Your task to perform on an android device: Open the web browser Image 0: 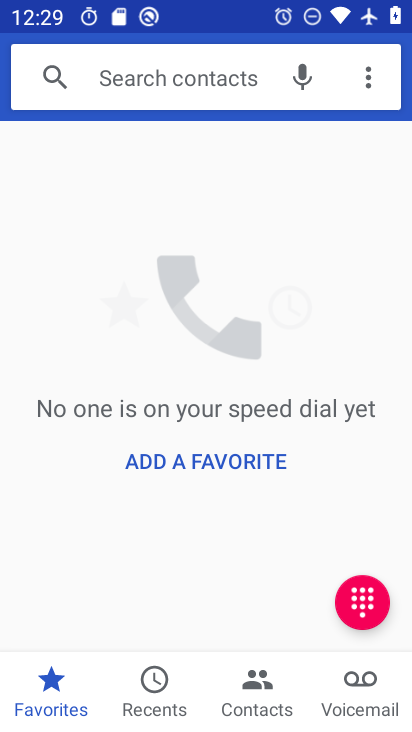
Step 0: press home button
Your task to perform on an android device: Open the web browser Image 1: 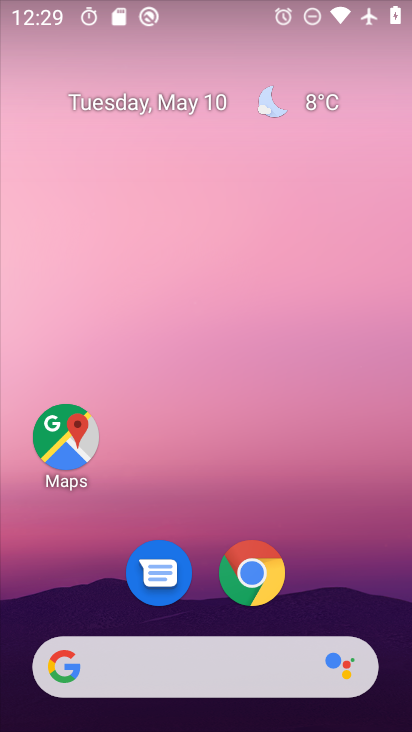
Step 1: click (248, 578)
Your task to perform on an android device: Open the web browser Image 2: 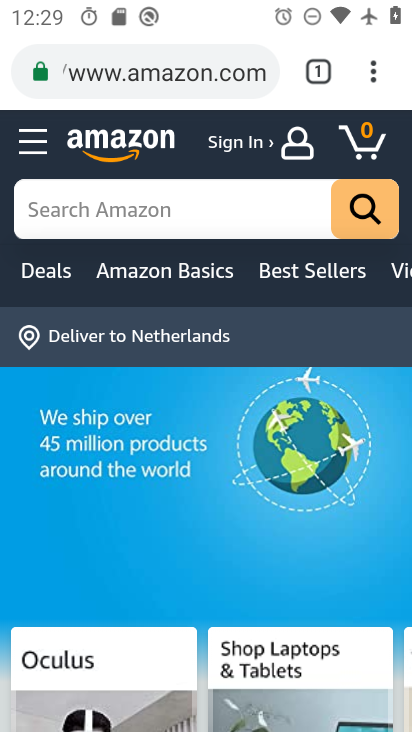
Step 2: task complete